Your task to perform on an android device: Look up the book "The Girl on the Train". Image 0: 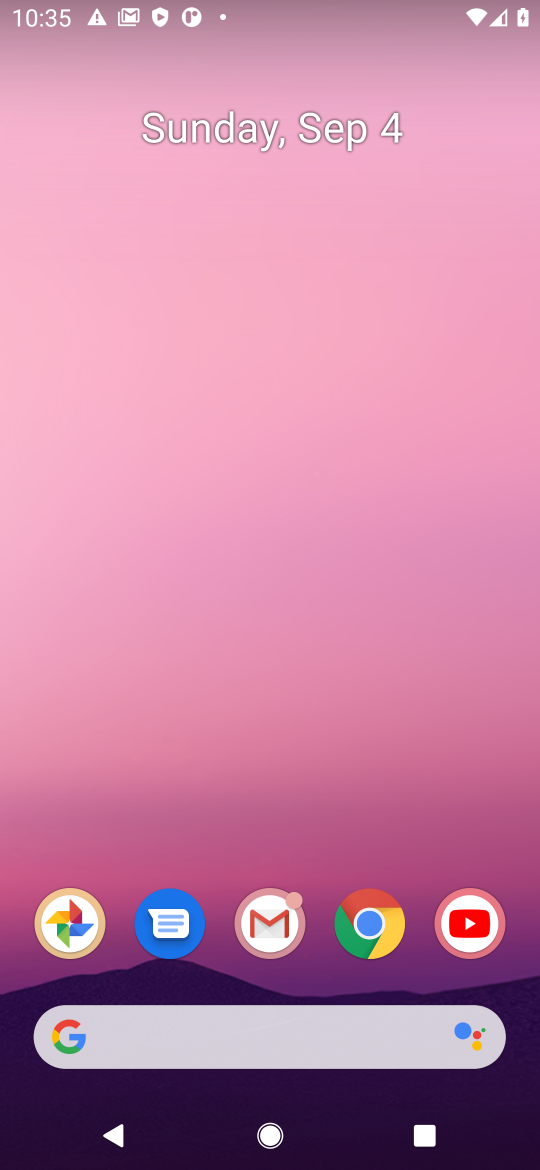
Step 0: click (274, 1045)
Your task to perform on an android device: Look up the book "The Girl on the Train". Image 1: 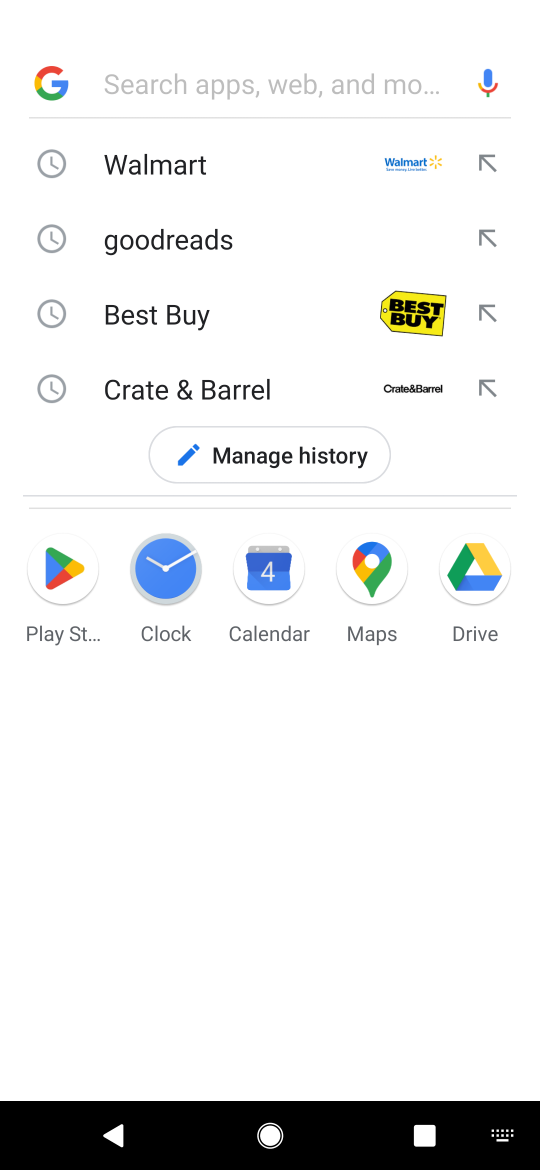
Step 1: click (199, 229)
Your task to perform on an android device: Look up the book "The Girl on the Train". Image 2: 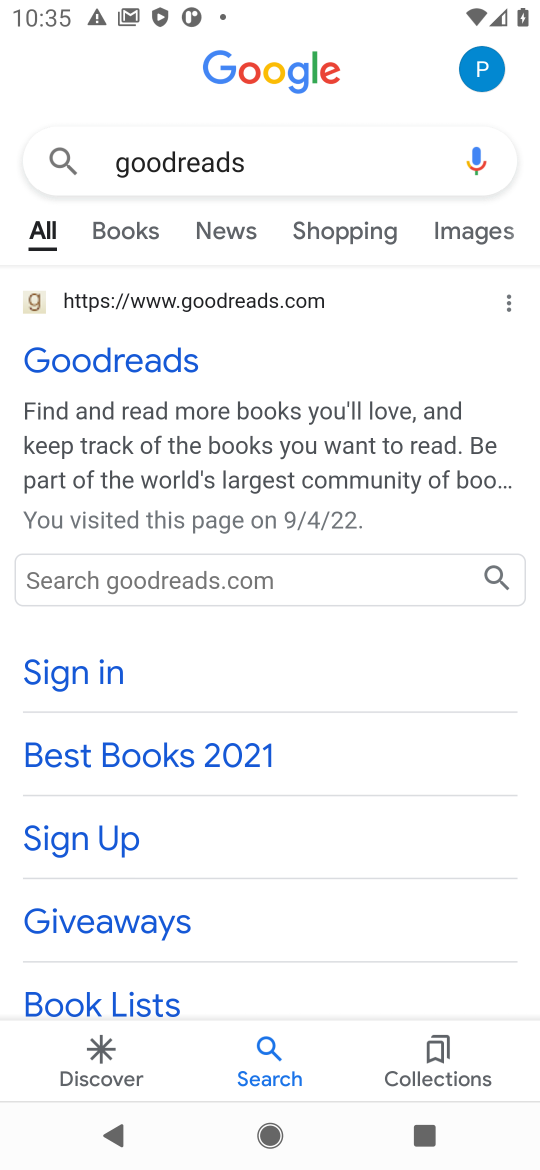
Step 2: click (147, 357)
Your task to perform on an android device: Look up the book "The Girl on the Train". Image 3: 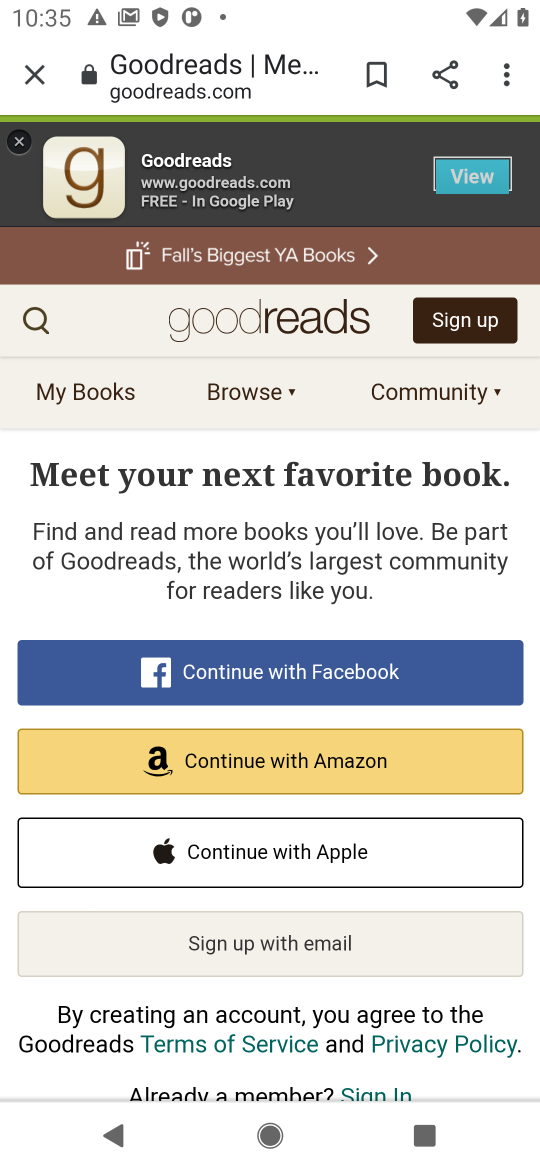
Step 3: click (55, 333)
Your task to perform on an android device: Look up the book "The Girl on the Train". Image 4: 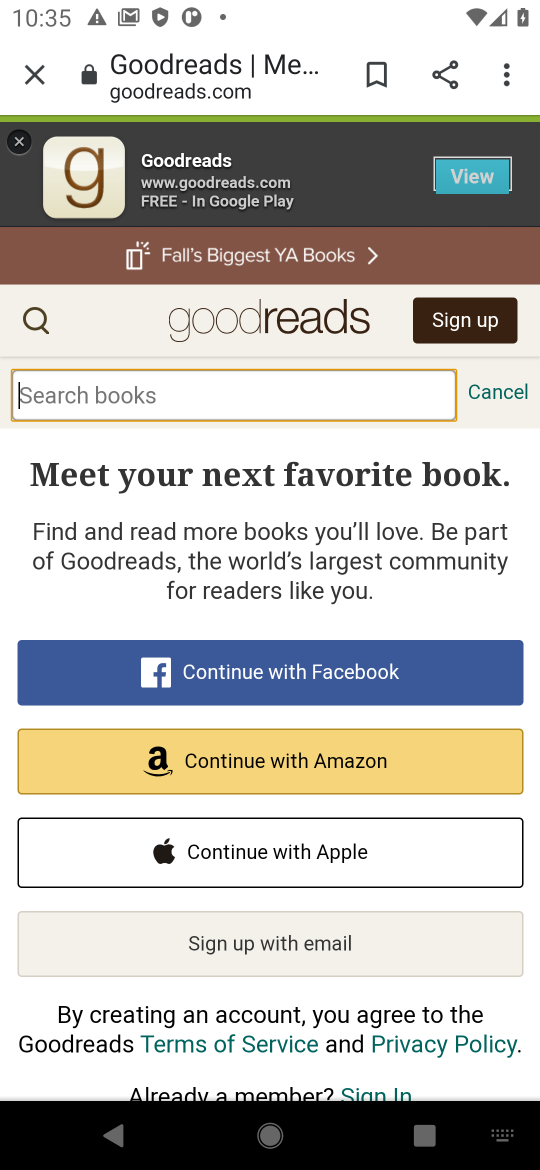
Step 4: press enter
Your task to perform on an android device: Look up the book "The Girl on the Train". Image 5: 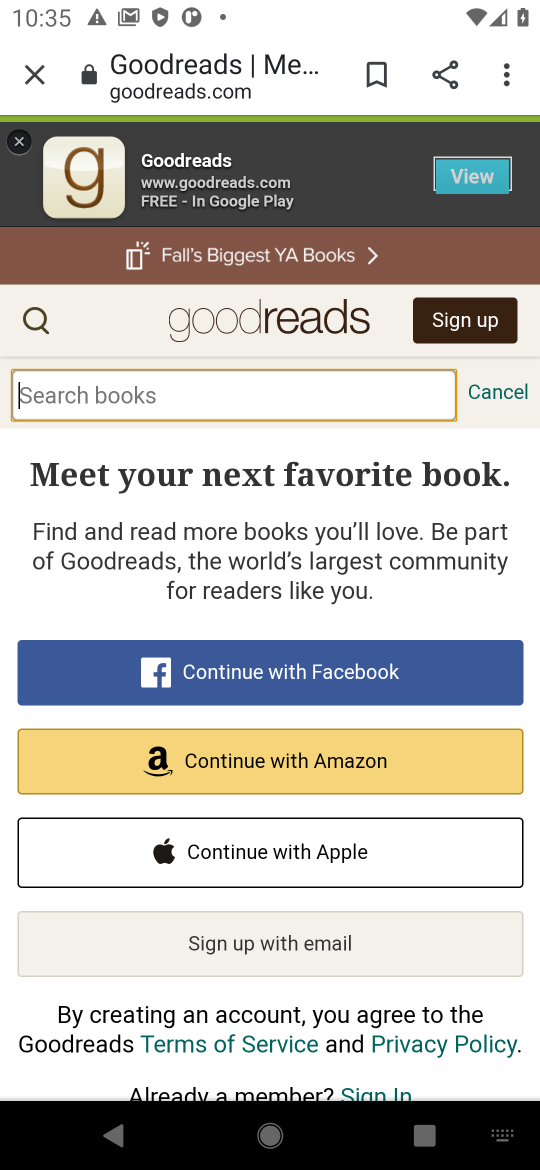
Step 5: type "The Girl on the Train"
Your task to perform on an android device: Look up the book "The Girl on the Train". Image 6: 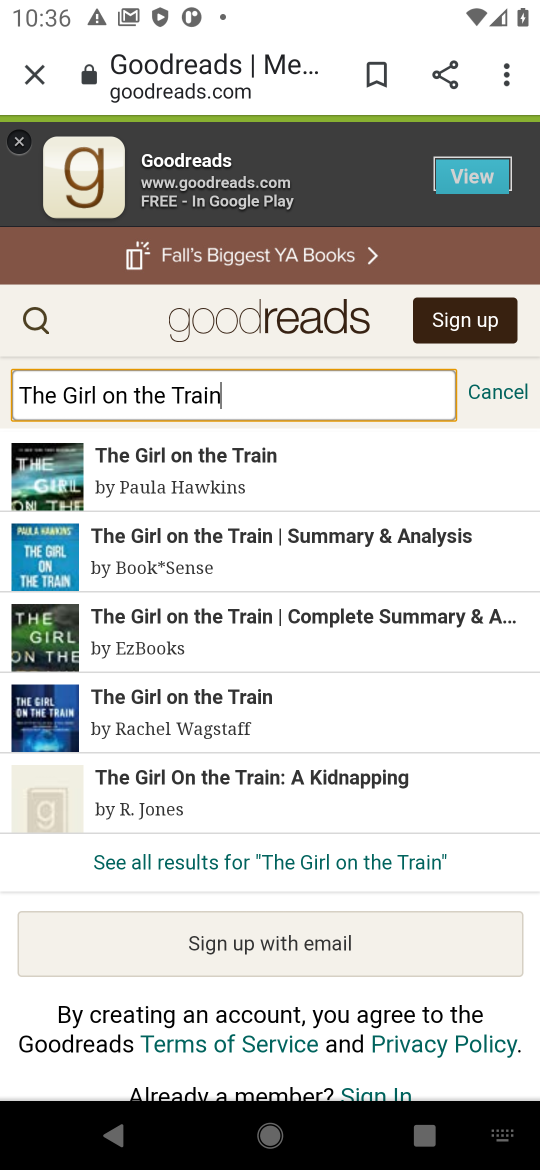
Step 6: task complete